Your task to perform on an android device: Open accessibility settings Image 0: 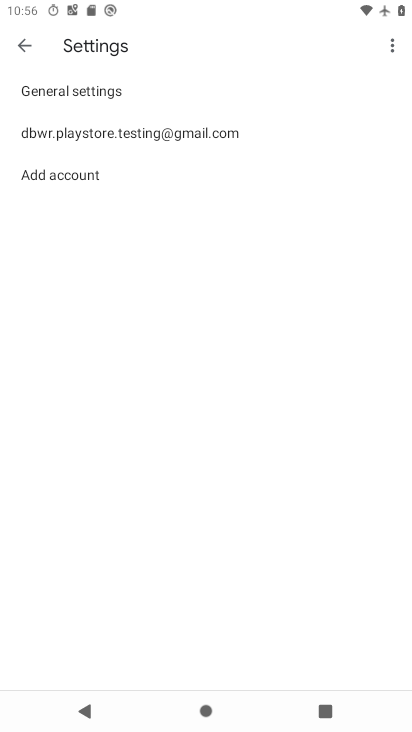
Step 0: press home button
Your task to perform on an android device: Open accessibility settings Image 1: 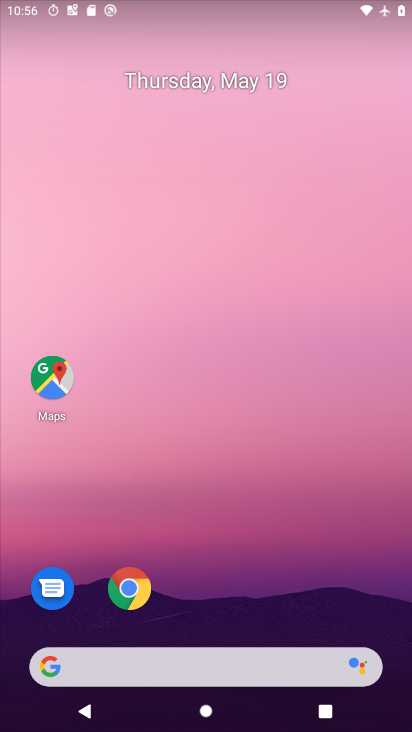
Step 1: drag from (139, 656) to (302, 165)
Your task to perform on an android device: Open accessibility settings Image 2: 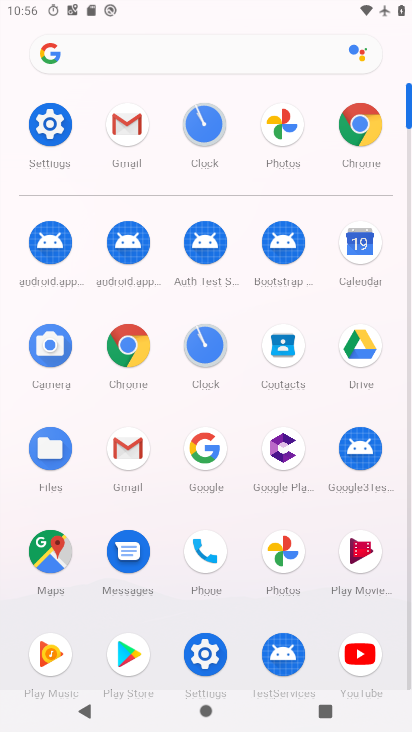
Step 2: click (52, 132)
Your task to perform on an android device: Open accessibility settings Image 3: 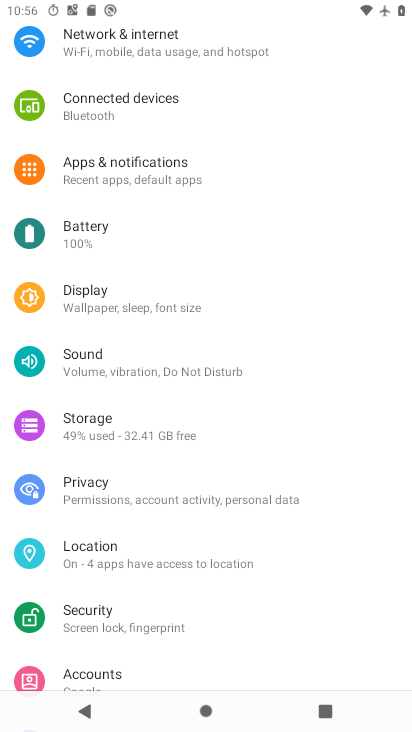
Step 3: drag from (221, 571) to (332, 102)
Your task to perform on an android device: Open accessibility settings Image 4: 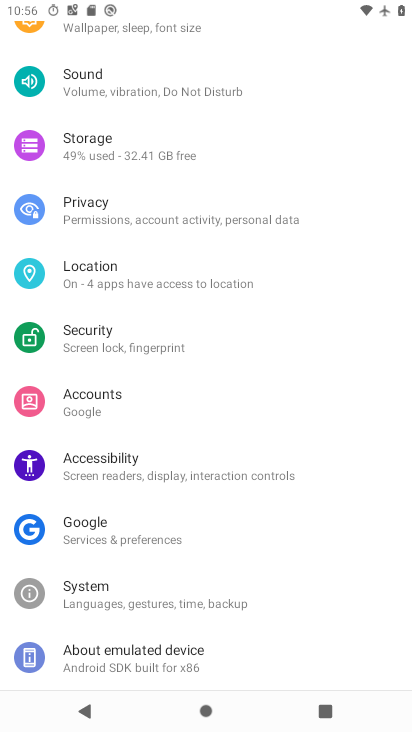
Step 4: click (149, 467)
Your task to perform on an android device: Open accessibility settings Image 5: 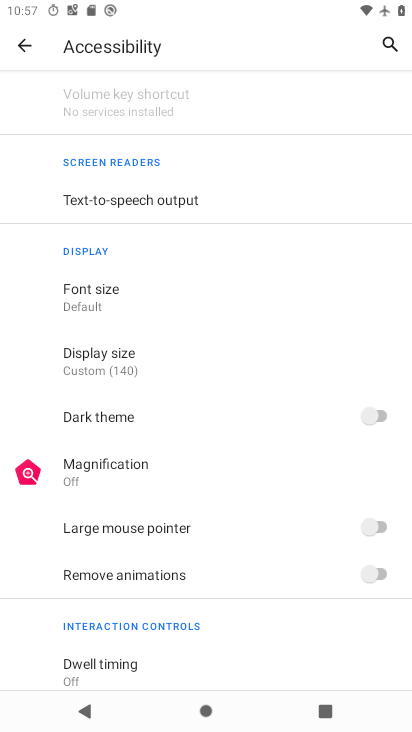
Step 5: task complete